Your task to perform on an android device: show emergency info Image 0: 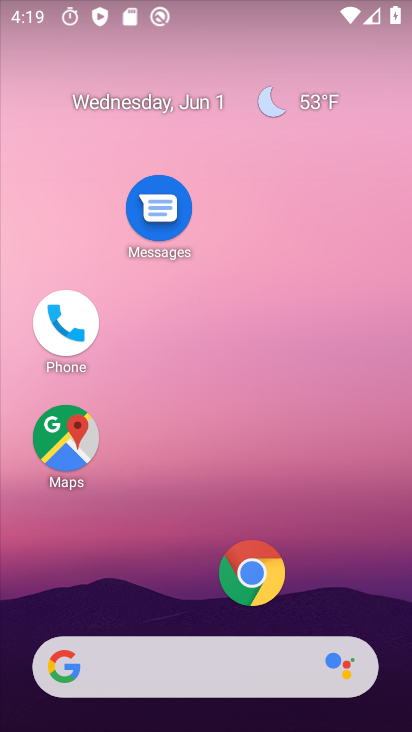
Step 0: drag from (140, 608) to (231, 60)
Your task to perform on an android device: show emergency info Image 1: 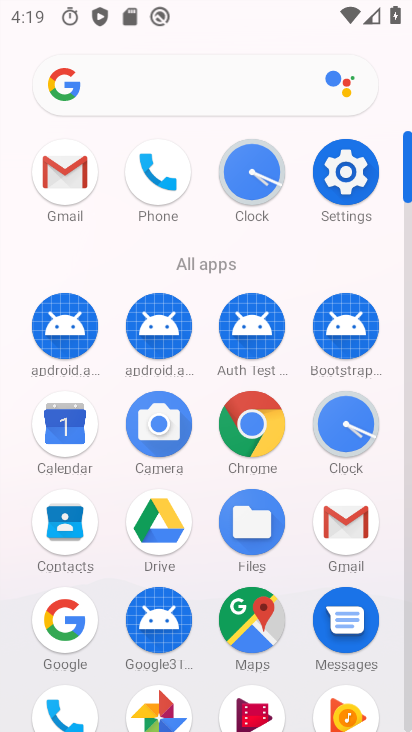
Step 1: click (319, 174)
Your task to perform on an android device: show emergency info Image 2: 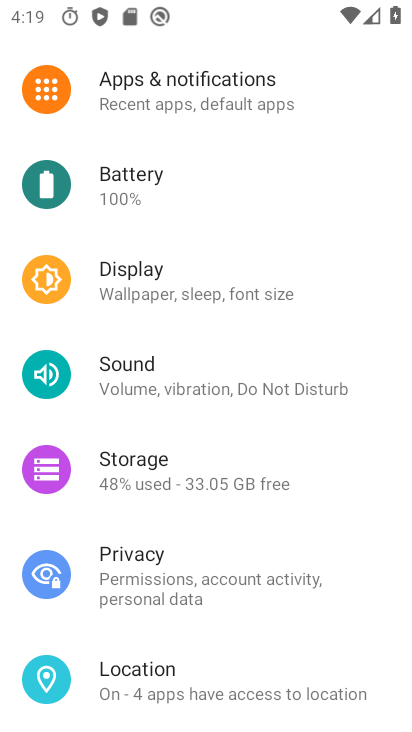
Step 2: drag from (124, 650) to (205, 83)
Your task to perform on an android device: show emergency info Image 3: 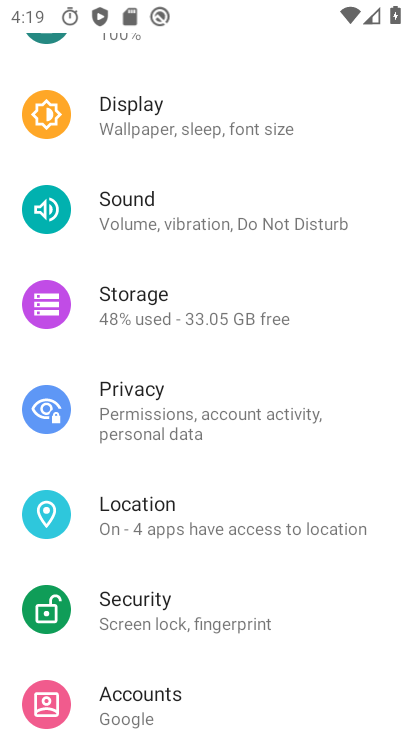
Step 3: drag from (261, 657) to (243, 288)
Your task to perform on an android device: show emergency info Image 4: 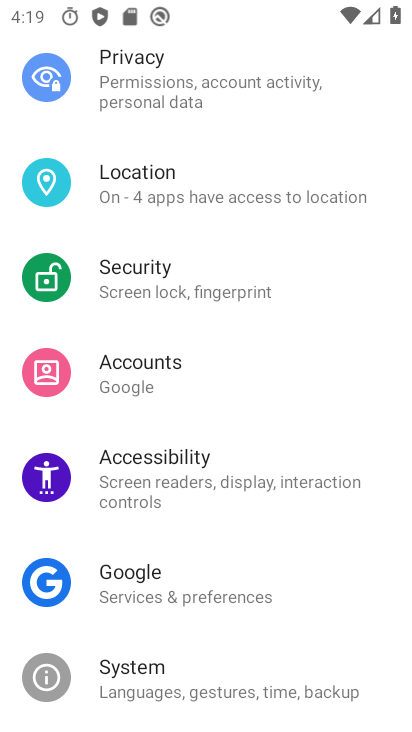
Step 4: drag from (111, 656) to (217, 67)
Your task to perform on an android device: show emergency info Image 5: 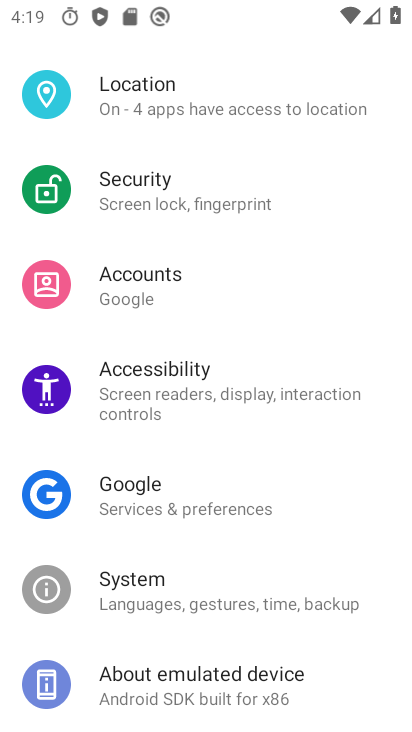
Step 5: click (154, 686)
Your task to perform on an android device: show emergency info Image 6: 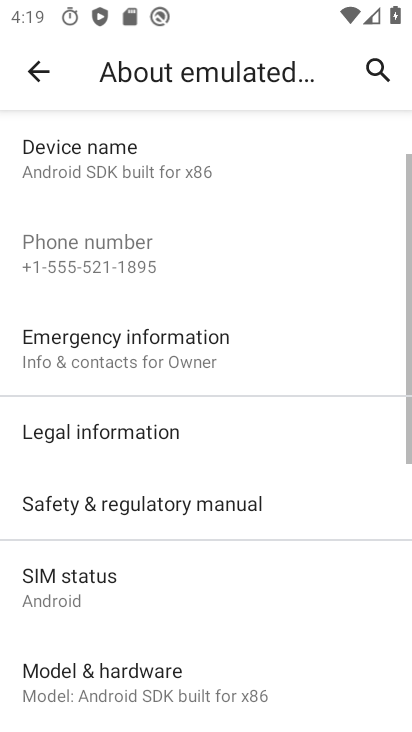
Step 6: click (133, 336)
Your task to perform on an android device: show emergency info Image 7: 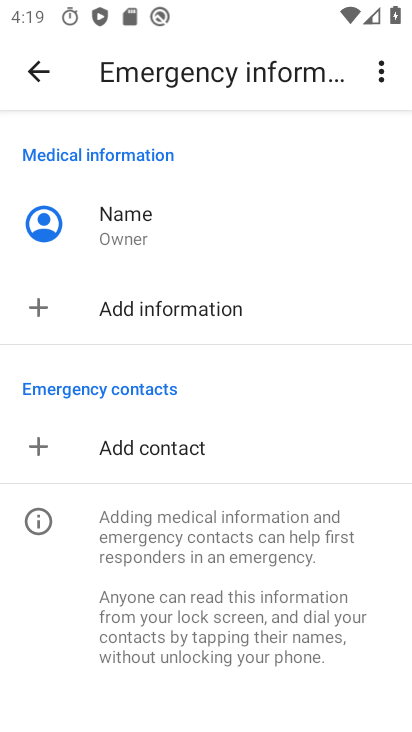
Step 7: task complete